Your task to perform on an android device: Open Google Chrome Image 0: 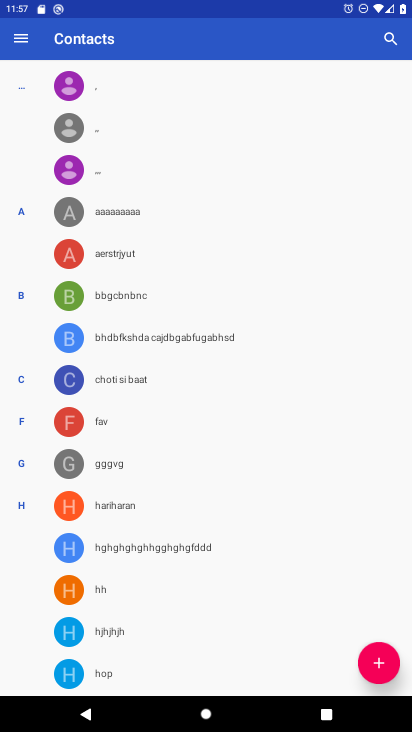
Step 0: press home button
Your task to perform on an android device: Open Google Chrome Image 1: 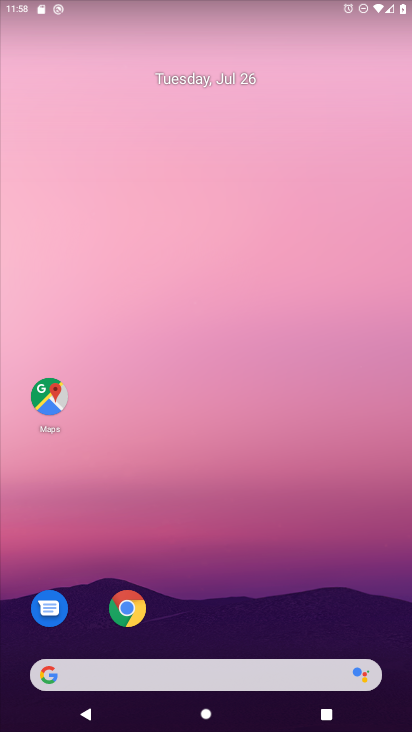
Step 1: click (126, 608)
Your task to perform on an android device: Open Google Chrome Image 2: 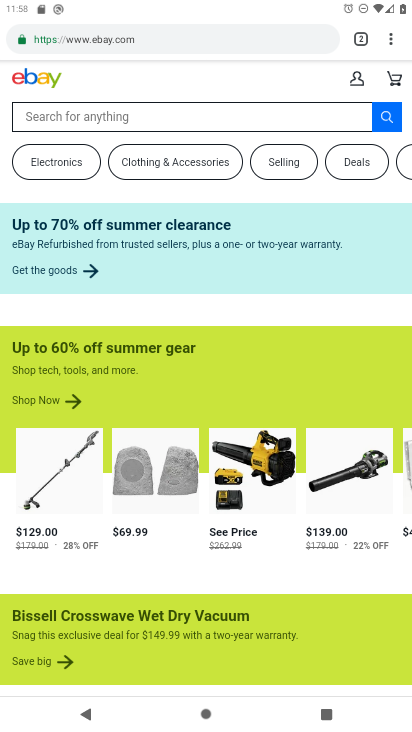
Step 2: task complete